Your task to perform on an android device: Open Maps and search for coffee Image 0: 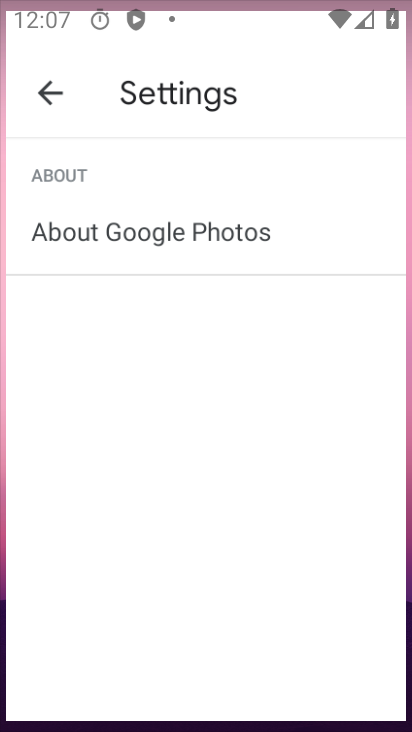
Step 0: click (237, 565)
Your task to perform on an android device: Open Maps and search for coffee Image 1: 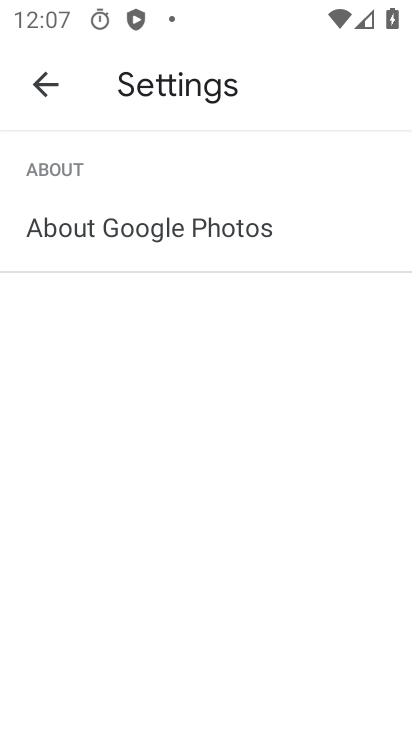
Step 1: press home button
Your task to perform on an android device: Open Maps and search for coffee Image 2: 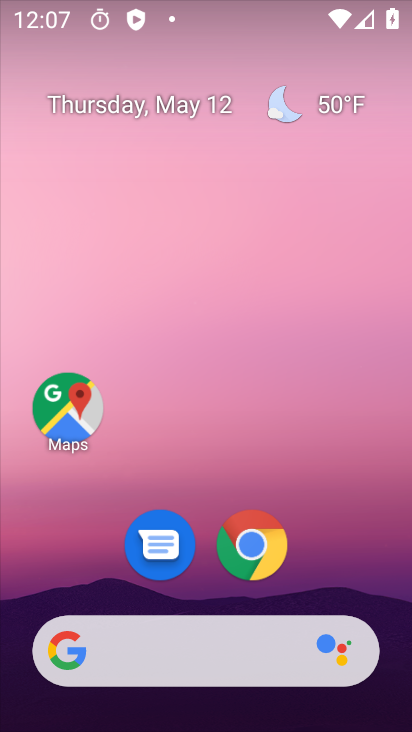
Step 2: click (63, 437)
Your task to perform on an android device: Open Maps and search for coffee Image 3: 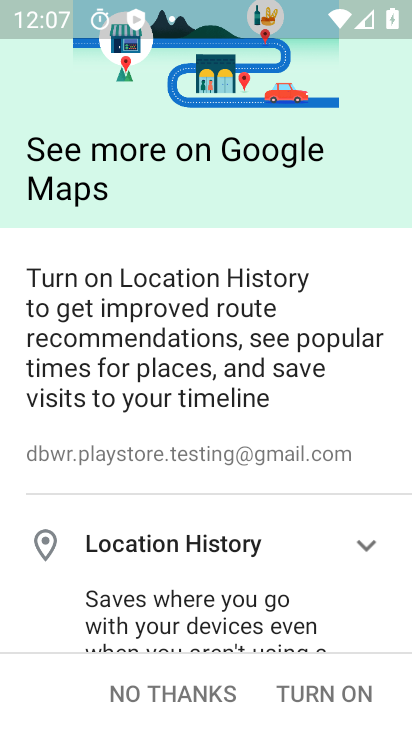
Step 3: click (307, 706)
Your task to perform on an android device: Open Maps and search for coffee Image 4: 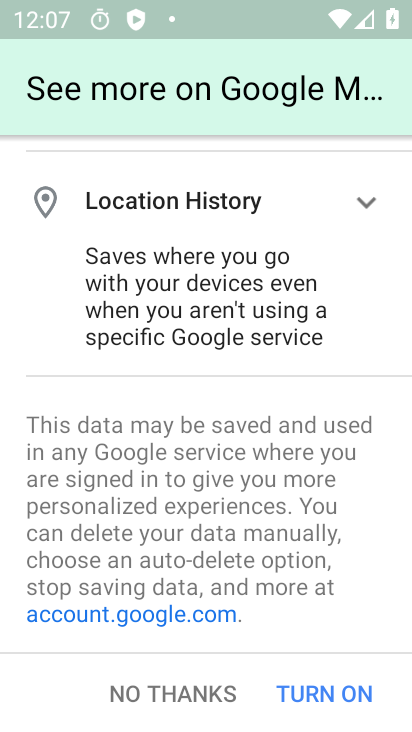
Step 4: click (365, 706)
Your task to perform on an android device: Open Maps and search for coffee Image 5: 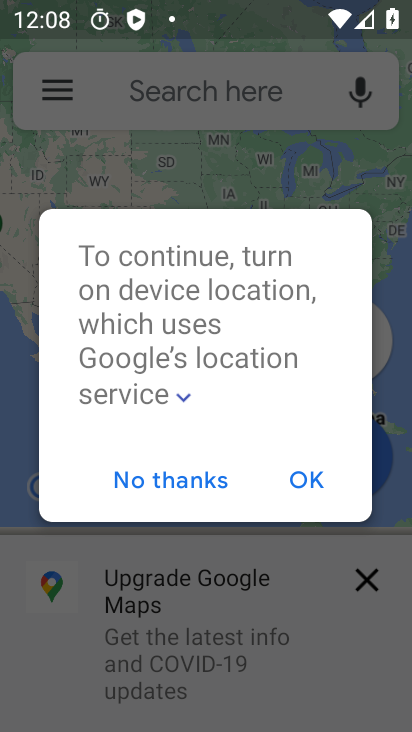
Step 5: click (308, 468)
Your task to perform on an android device: Open Maps and search for coffee Image 6: 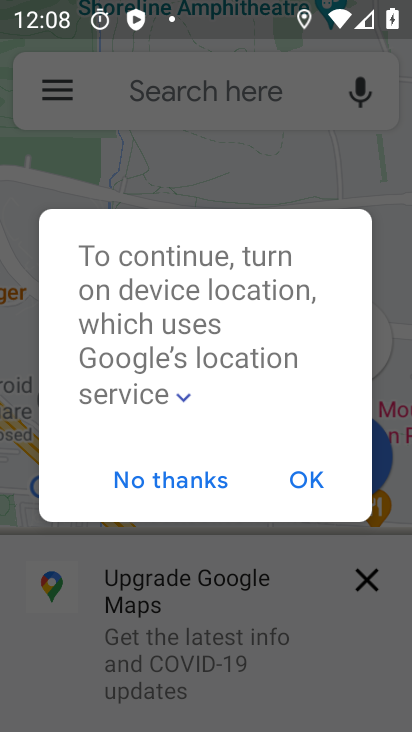
Step 6: click (297, 472)
Your task to perform on an android device: Open Maps and search for coffee Image 7: 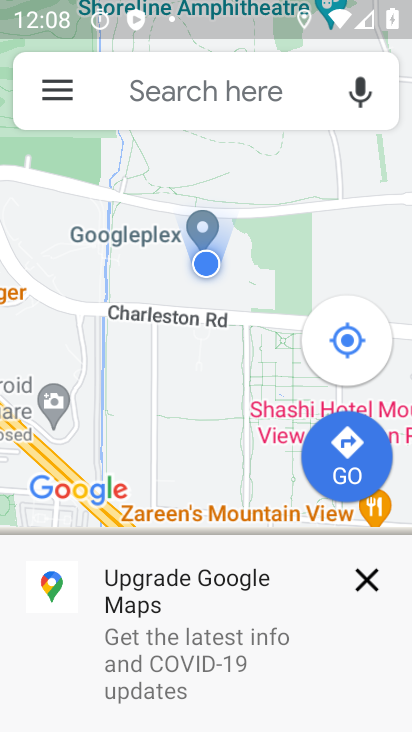
Step 7: click (199, 111)
Your task to perform on an android device: Open Maps and search for coffee Image 8: 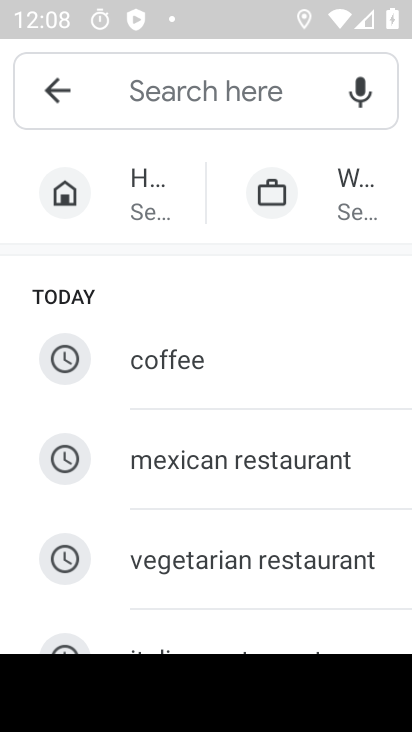
Step 8: click (206, 345)
Your task to perform on an android device: Open Maps and search for coffee Image 9: 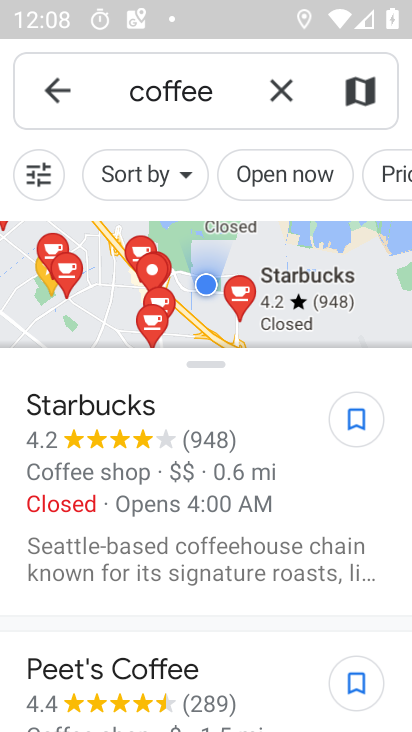
Step 9: task complete